Your task to perform on an android device: Do I have any events today? Image 0: 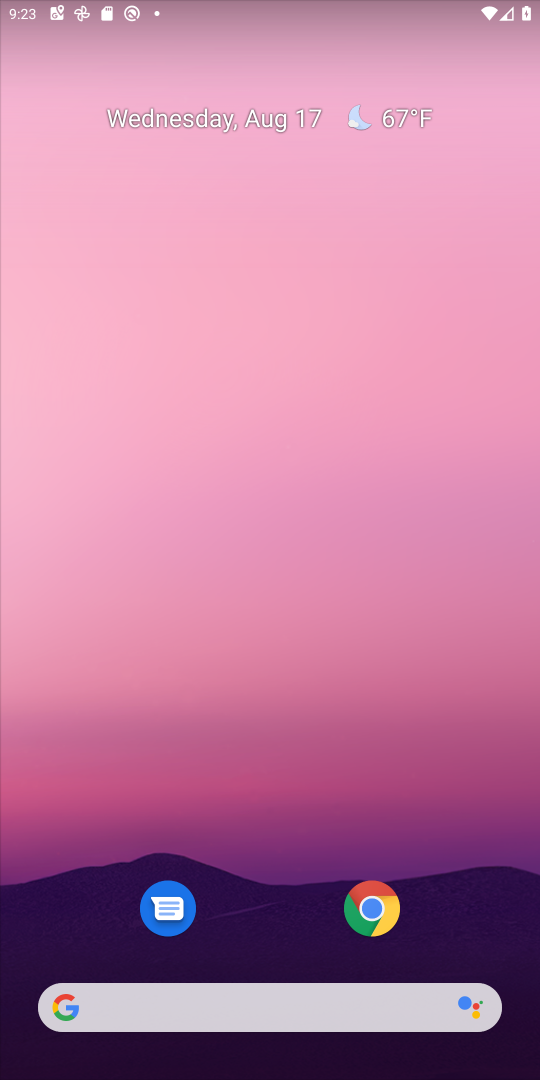
Step 0: drag from (257, 950) to (364, 238)
Your task to perform on an android device: Do I have any events today? Image 1: 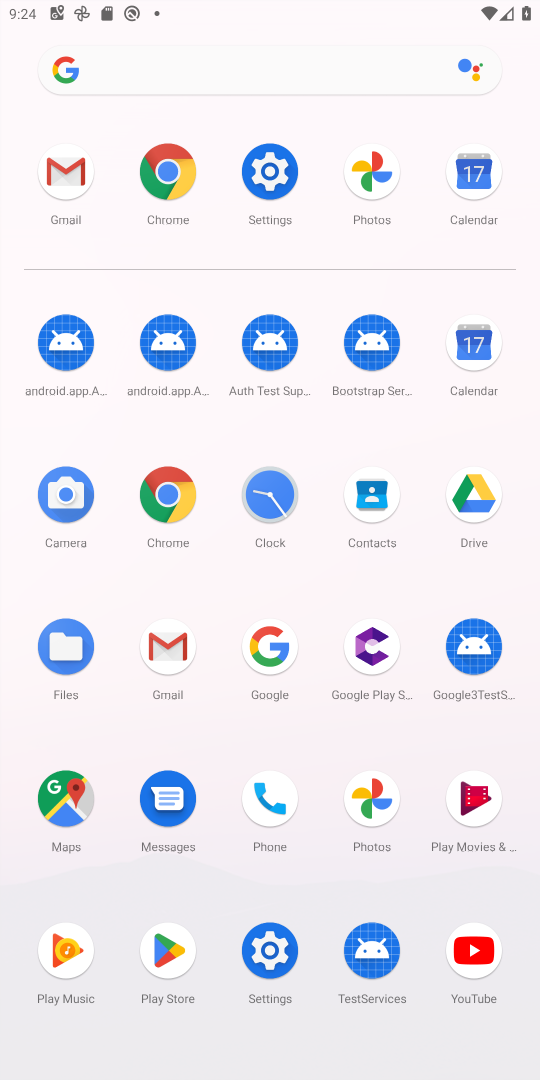
Step 1: click (485, 330)
Your task to perform on an android device: Do I have any events today? Image 2: 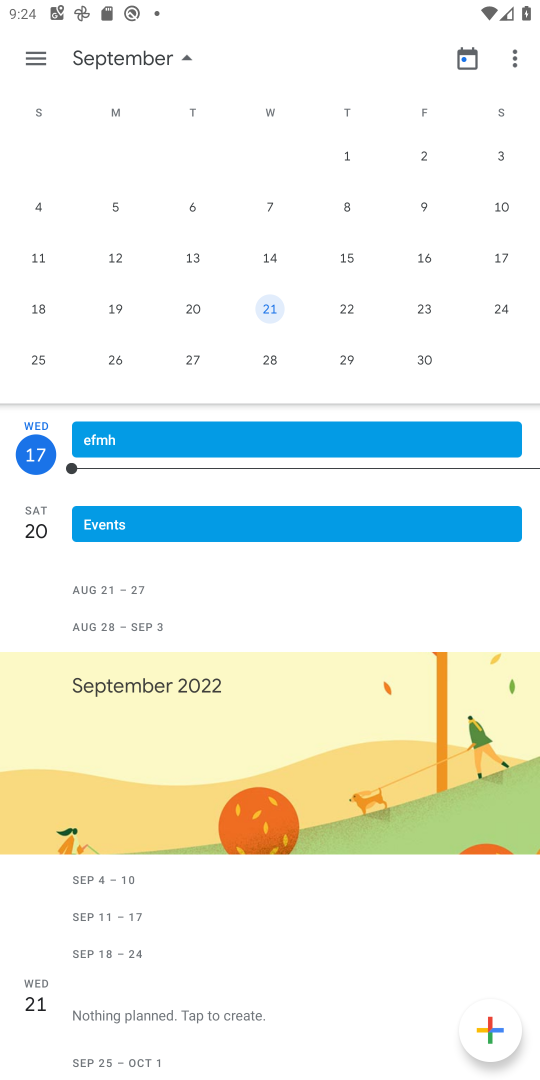
Step 2: drag from (117, 241) to (534, 271)
Your task to perform on an android device: Do I have any events today? Image 3: 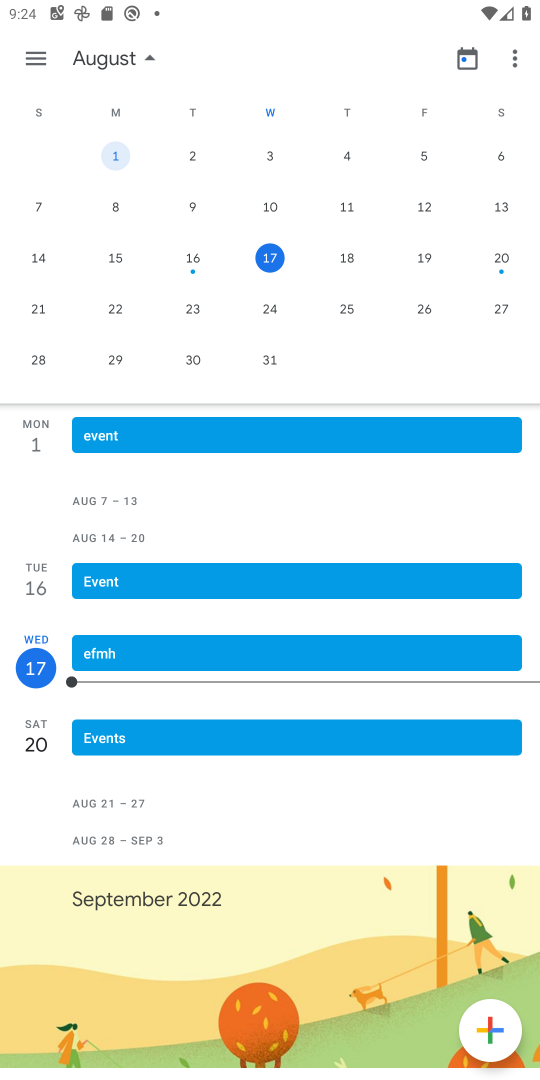
Step 3: click (259, 256)
Your task to perform on an android device: Do I have any events today? Image 4: 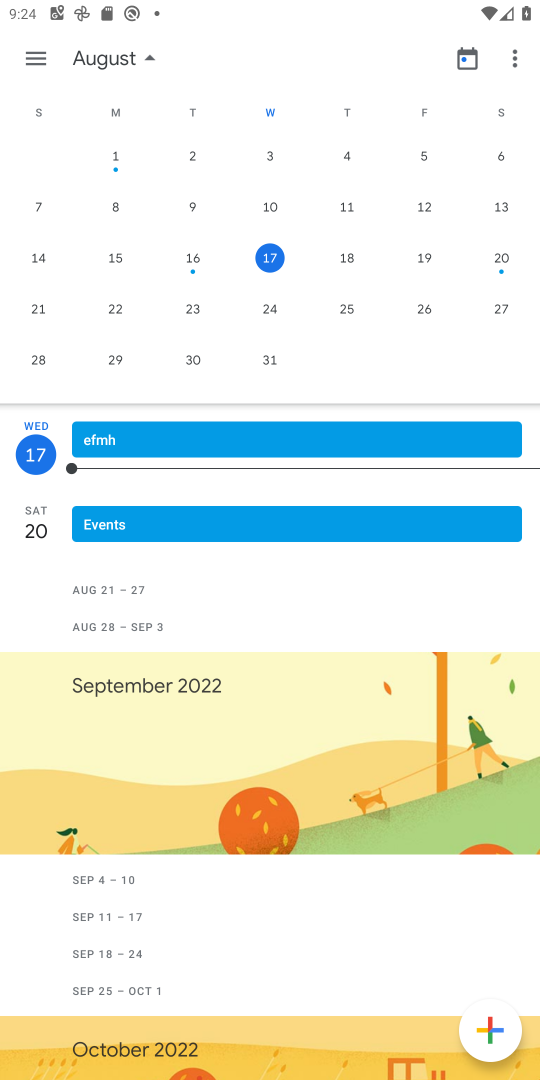
Step 4: task complete